Your task to perform on an android device: toggle data saver in the chrome app Image 0: 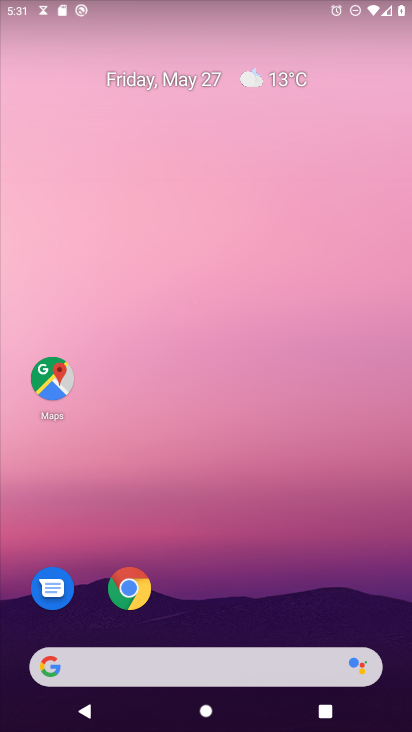
Step 0: click (130, 581)
Your task to perform on an android device: toggle data saver in the chrome app Image 1: 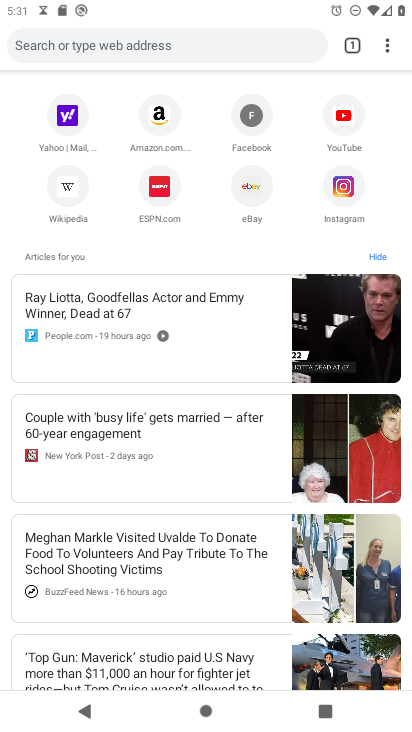
Step 1: drag from (388, 48) to (241, 378)
Your task to perform on an android device: toggle data saver in the chrome app Image 2: 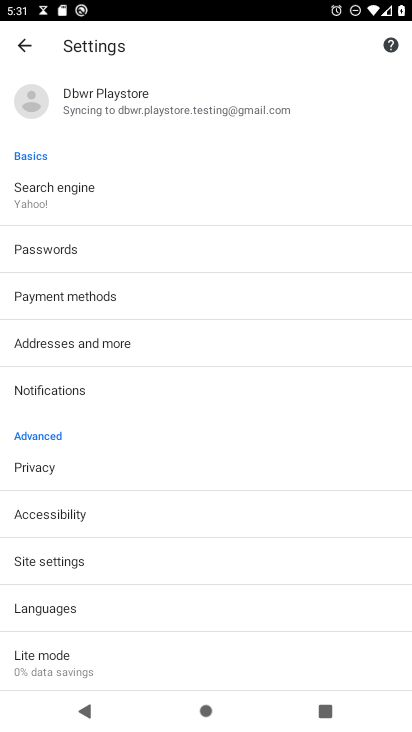
Step 2: click (50, 657)
Your task to perform on an android device: toggle data saver in the chrome app Image 3: 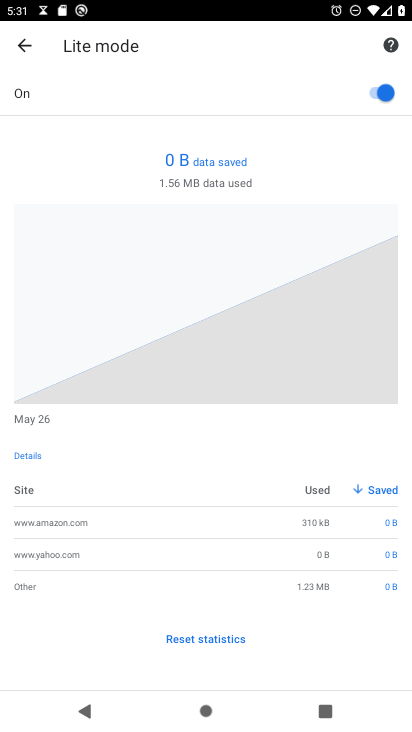
Step 3: click (373, 89)
Your task to perform on an android device: toggle data saver in the chrome app Image 4: 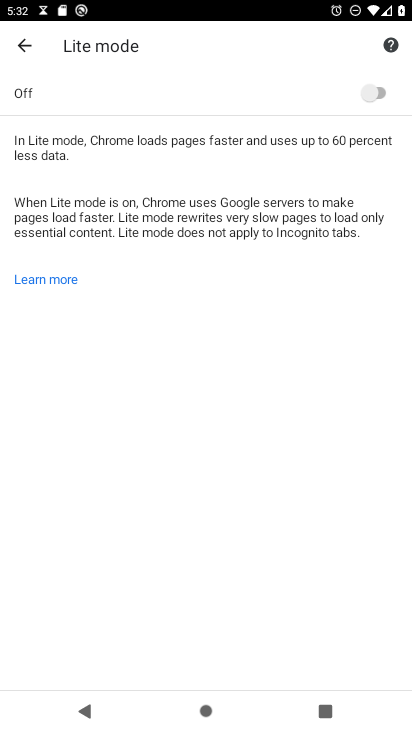
Step 4: click (367, 89)
Your task to perform on an android device: toggle data saver in the chrome app Image 5: 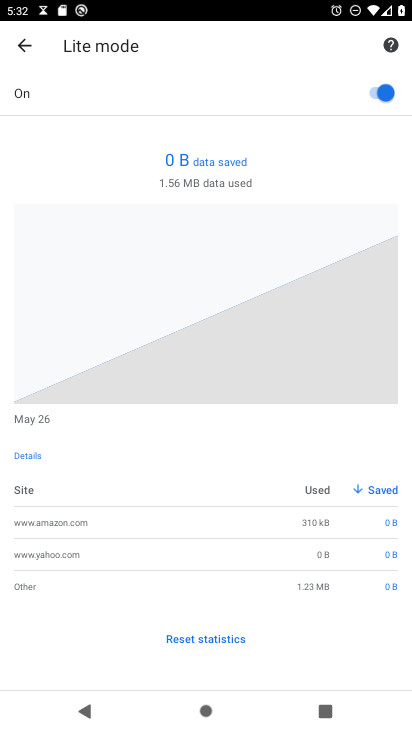
Step 5: task complete